Your task to perform on an android device: read, delete, or share a saved page in the chrome app Image 0: 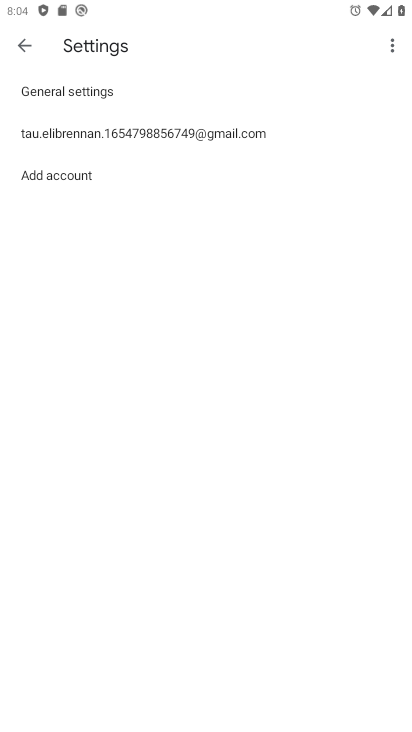
Step 0: press home button
Your task to perform on an android device: read, delete, or share a saved page in the chrome app Image 1: 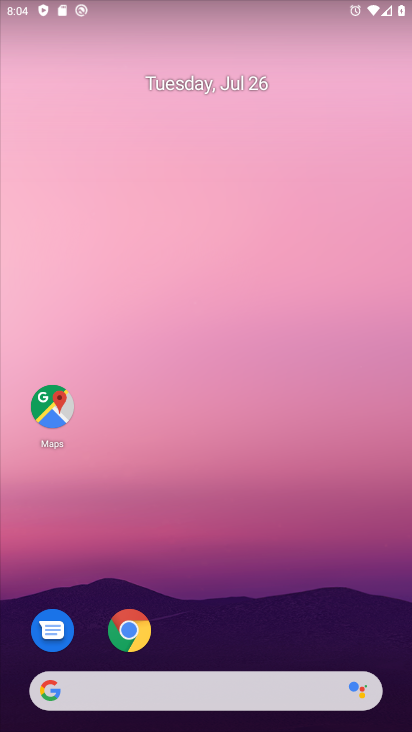
Step 1: click (132, 631)
Your task to perform on an android device: read, delete, or share a saved page in the chrome app Image 2: 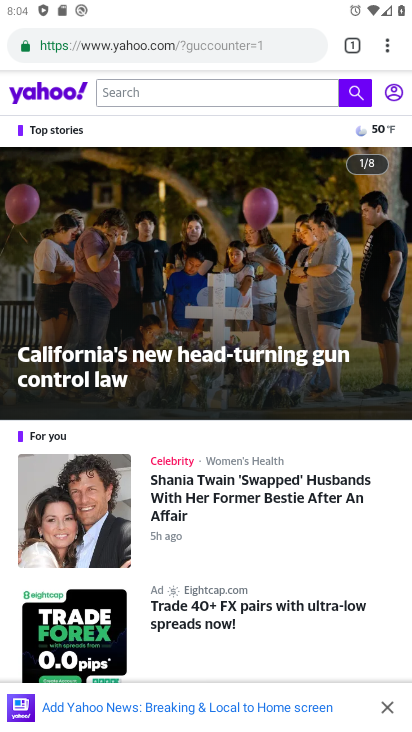
Step 2: click (387, 43)
Your task to perform on an android device: read, delete, or share a saved page in the chrome app Image 3: 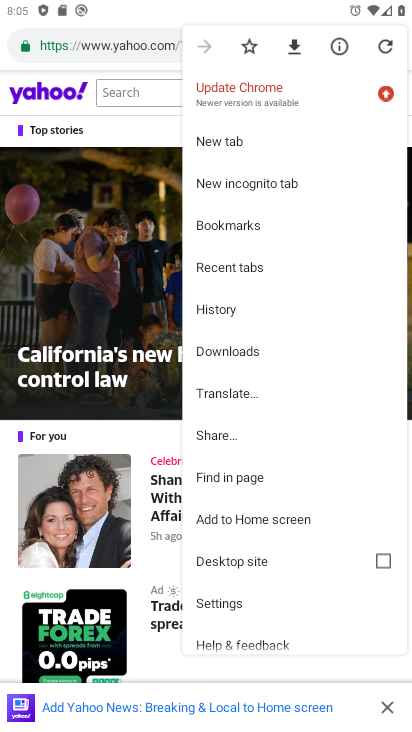
Step 3: click (225, 352)
Your task to perform on an android device: read, delete, or share a saved page in the chrome app Image 4: 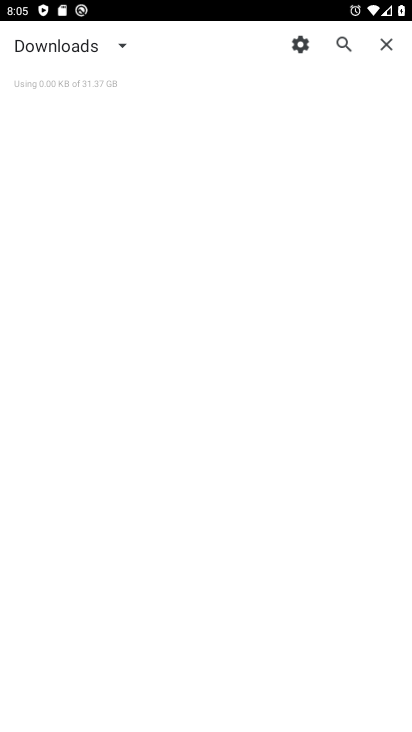
Step 4: click (121, 46)
Your task to perform on an android device: read, delete, or share a saved page in the chrome app Image 5: 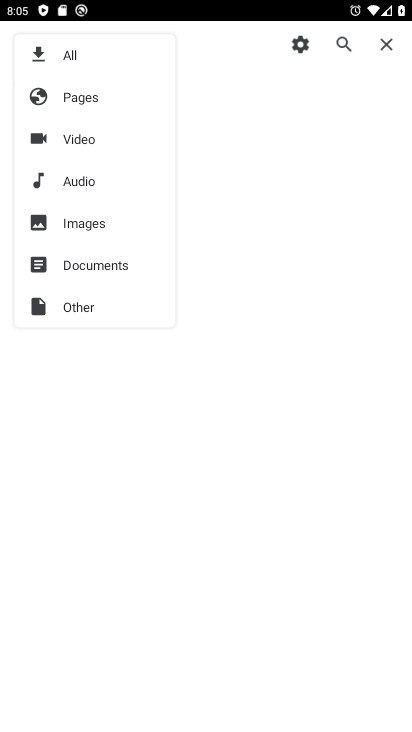
Step 5: click (87, 102)
Your task to perform on an android device: read, delete, or share a saved page in the chrome app Image 6: 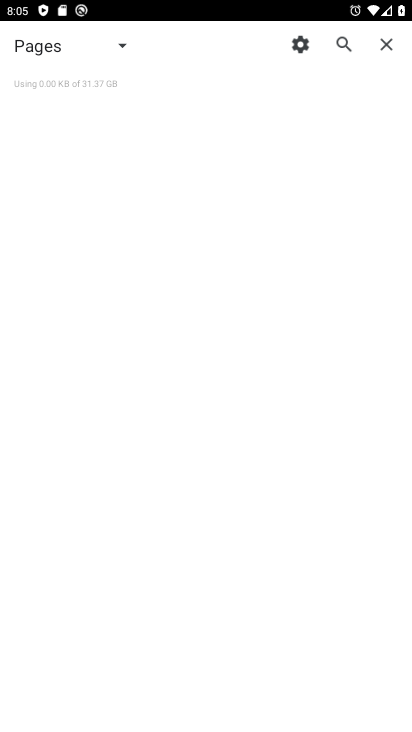
Step 6: click (124, 38)
Your task to perform on an android device: read, delete, or share a saved page in the chrome app Image 7: 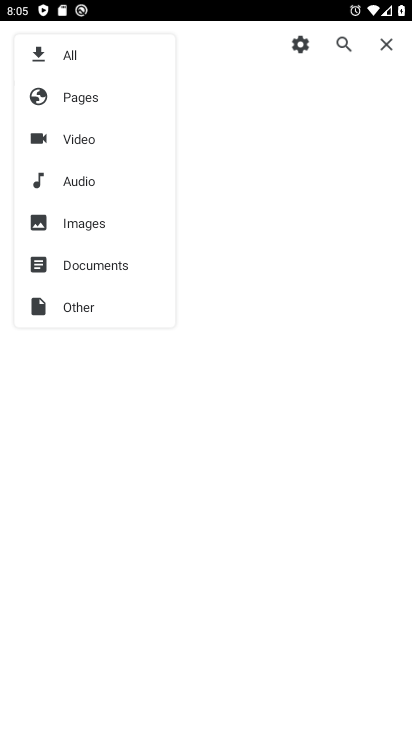
Step 7: click (95, 216)
Your task to perform on an android device: read, delete, or share a saved page in the chrome app Image 8: 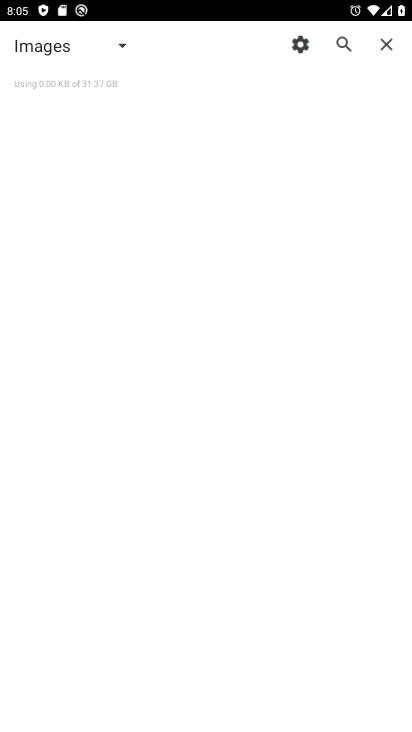
Step 8: click (117, 48)
Your task to perform on an android device: read, delete, or share a saved page in the chrome app Image 9: 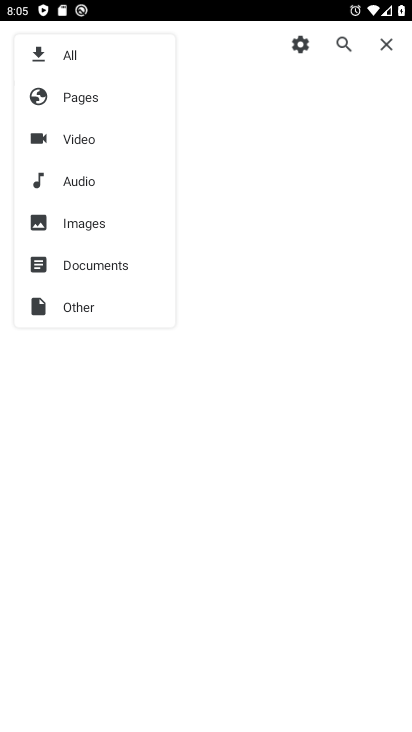
Step 9: click (96, 300)
Your task to perform on an android device: read, delete, or share a saved page in the chrome app Image 10: 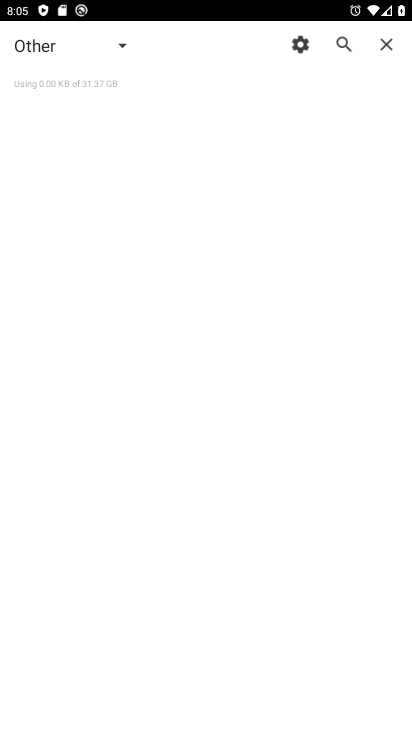
Step 10: task complete